Your task to perform on an android device: Check the news Image 0: 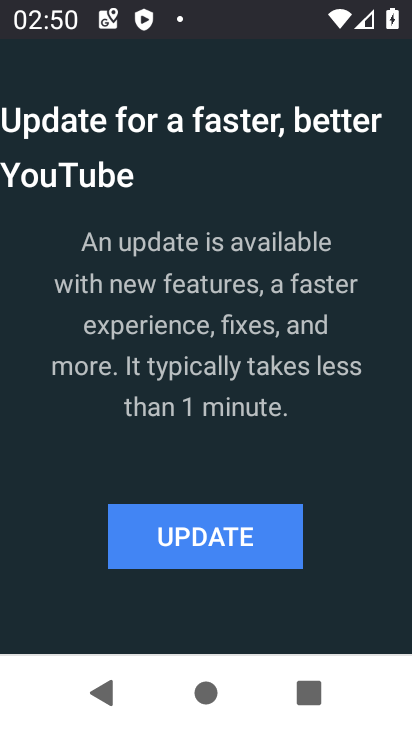
Step 0: press home button
Your task to perform on an android device: Check the news Image 1: 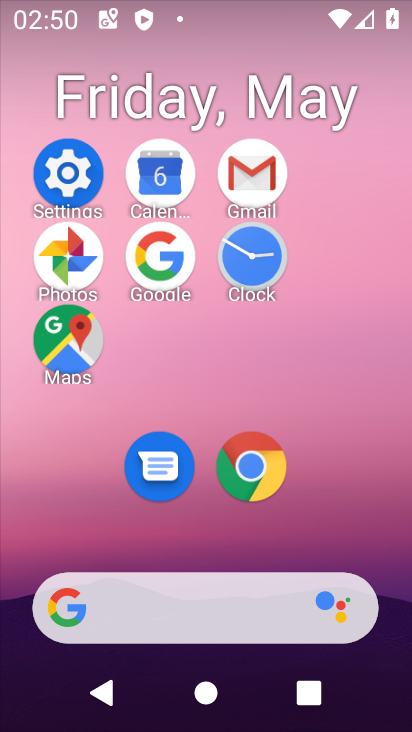
Step 1: click (159, 281)
Your task to perform on an android device: Check the news Image 2: 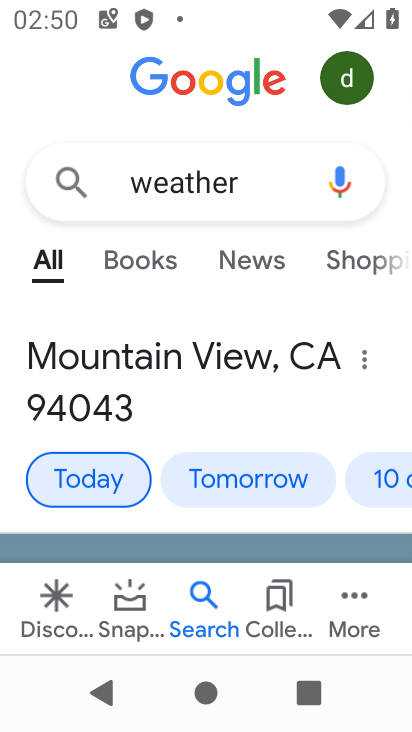
Step 2: click (270, 177)
Your task to perform on an android device: Check the news Image 3: 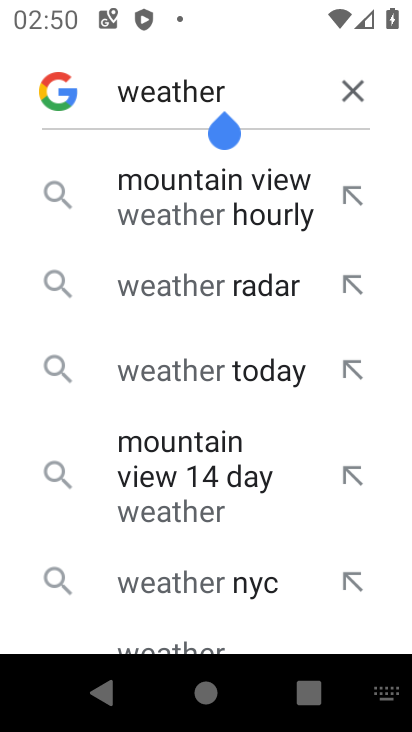
Step 3: click (344, 86)
Your task to perform on an android device: Check the news Image 4: 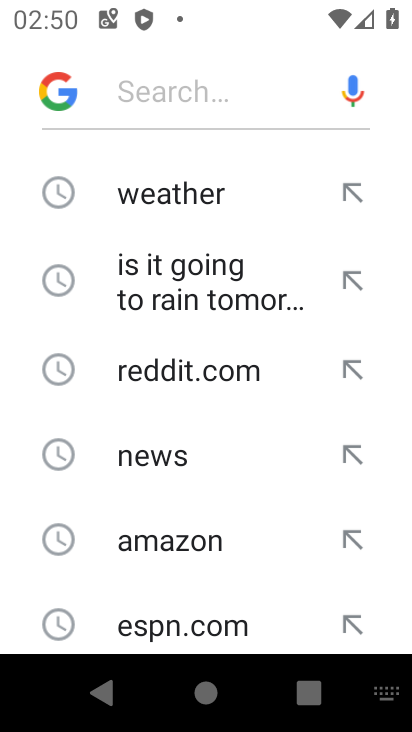
Step 4: click (180, 440)
Your task to perform on an android device: Check the news Image 5: 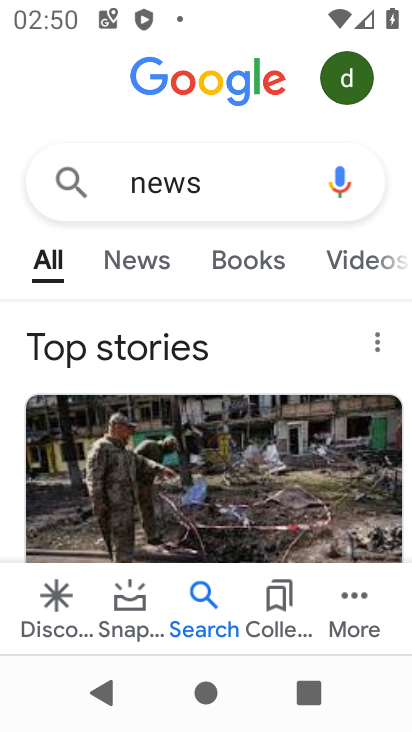
Step 5: task complete